Your task to perform on an android device: Search for the best books on Goodreads Image 0: 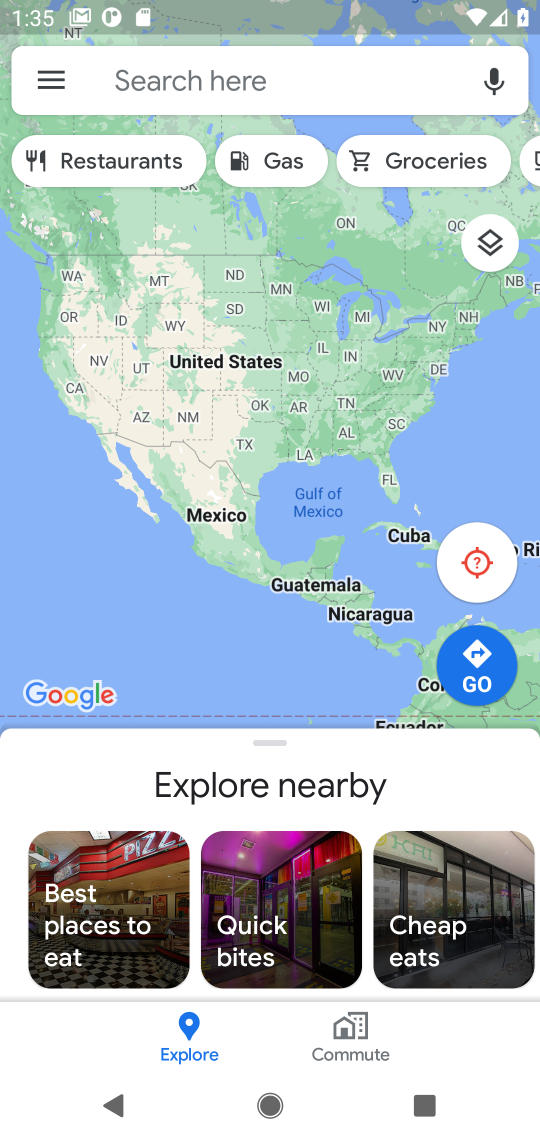
Step 0: press home button
Your task to perform on an android device: Search for the best books on Goodreads Image 1: 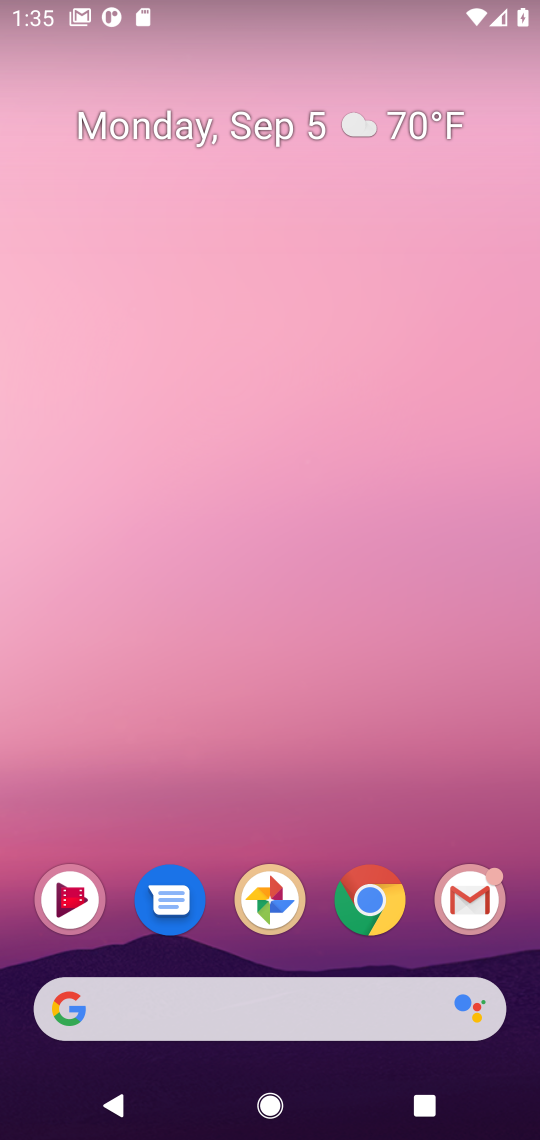
Step 1: drag from (303, 968) to (389, 173)
Your task to perform on an android device: Search for the best books on Goodreads Image 2: 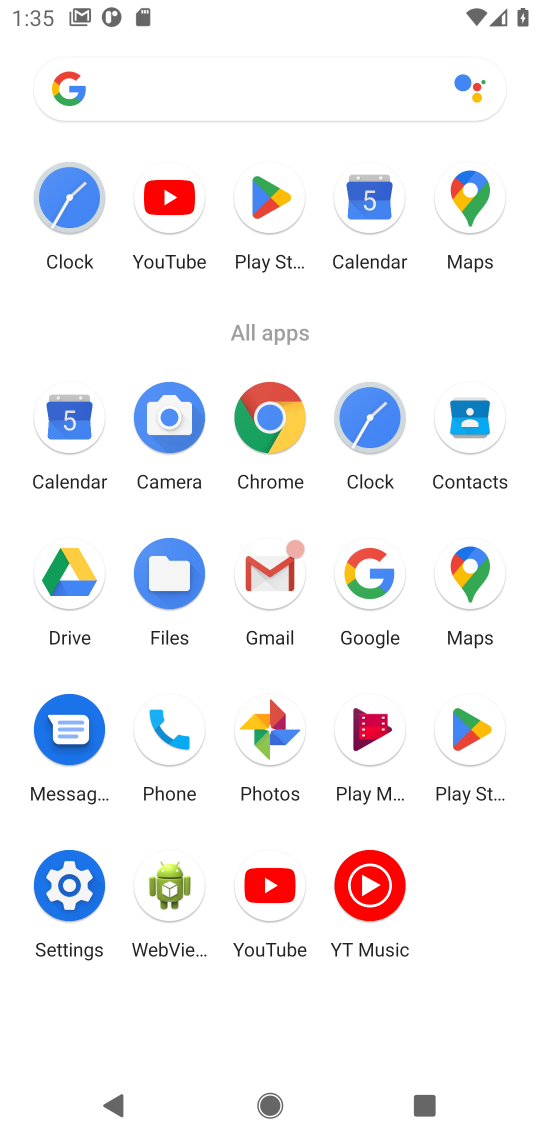
Step 2: click (372, 581)
Your task to perform on an android device: Search for the best books on Goodreads Image 3: 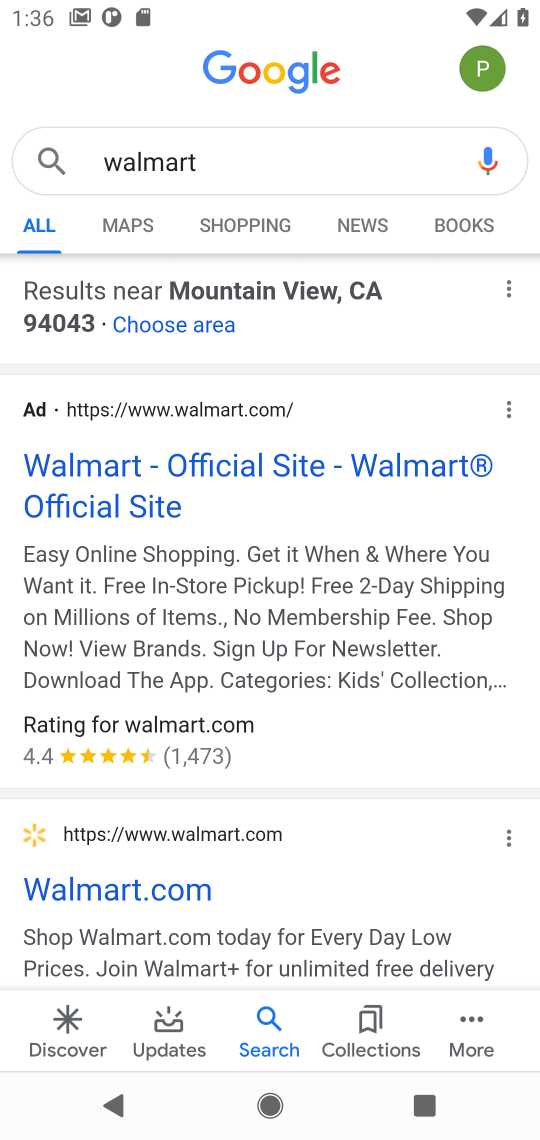
Step 3: click (305, 167)
Your task to perform on an android device: Search for the best books on Goodreads Image 4: 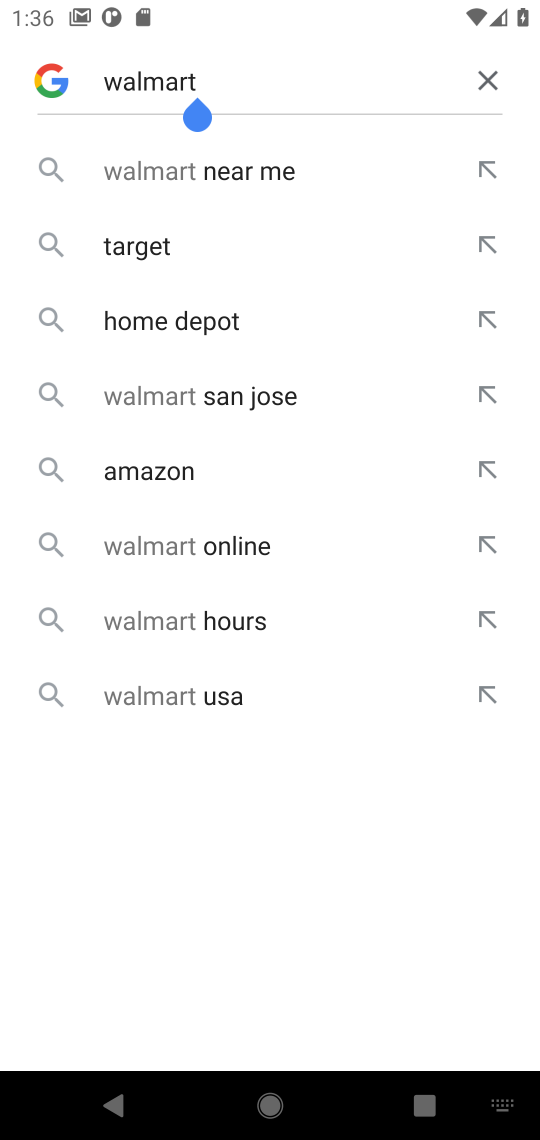
Step 4: click (490, 76)
Your task to perform on an android device: Search for the best books on Goodreads Image 5: 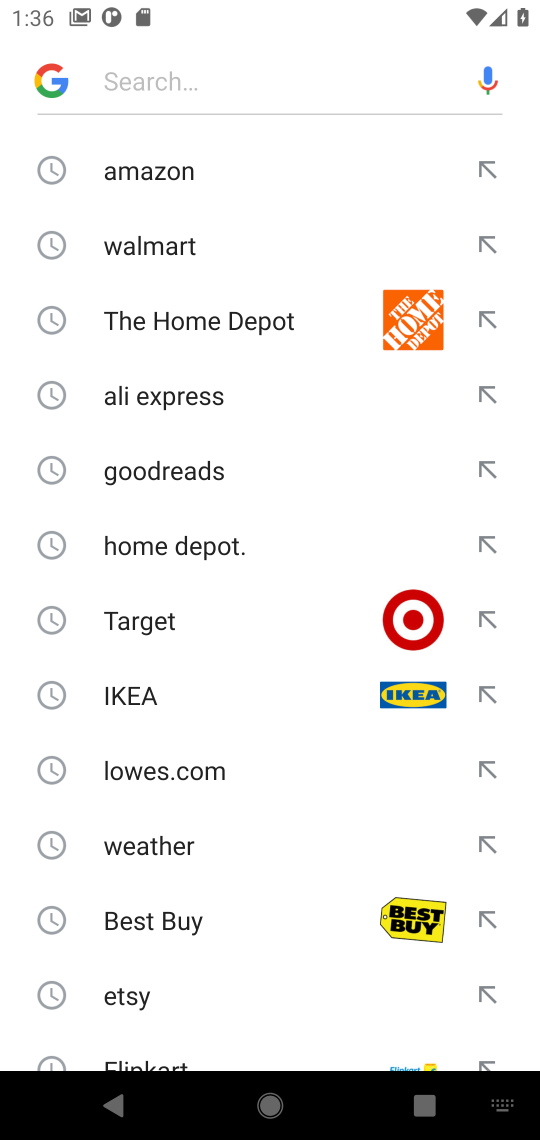
Step 5: type "Goodreads"
Your task to perform on an android device: Search for the best books on Goodreads Image 6: 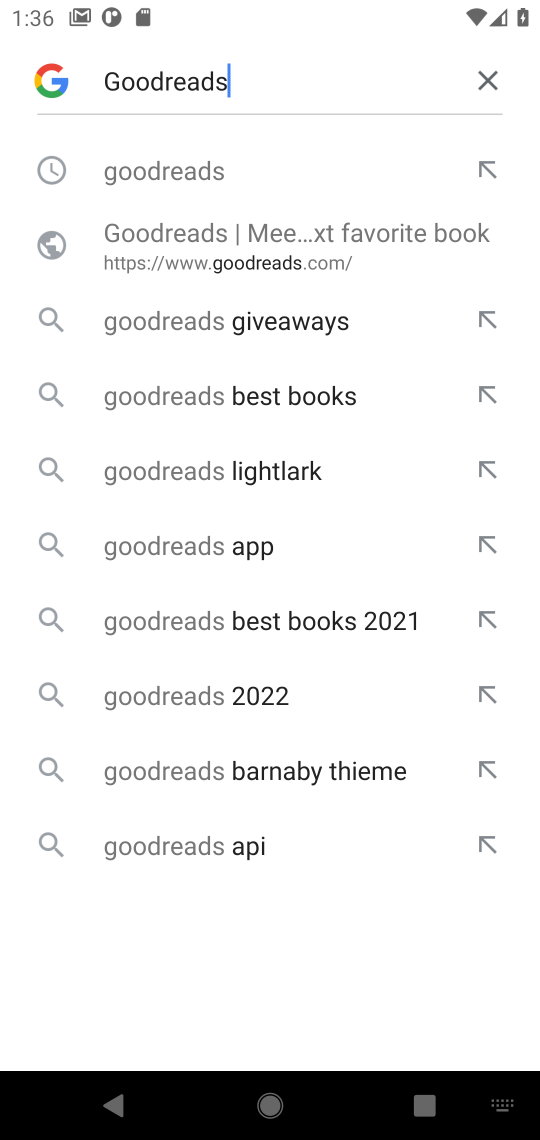
Step 6: type ""
Your task to perform on an android device: Search for the best books on Goodreads Image 7: 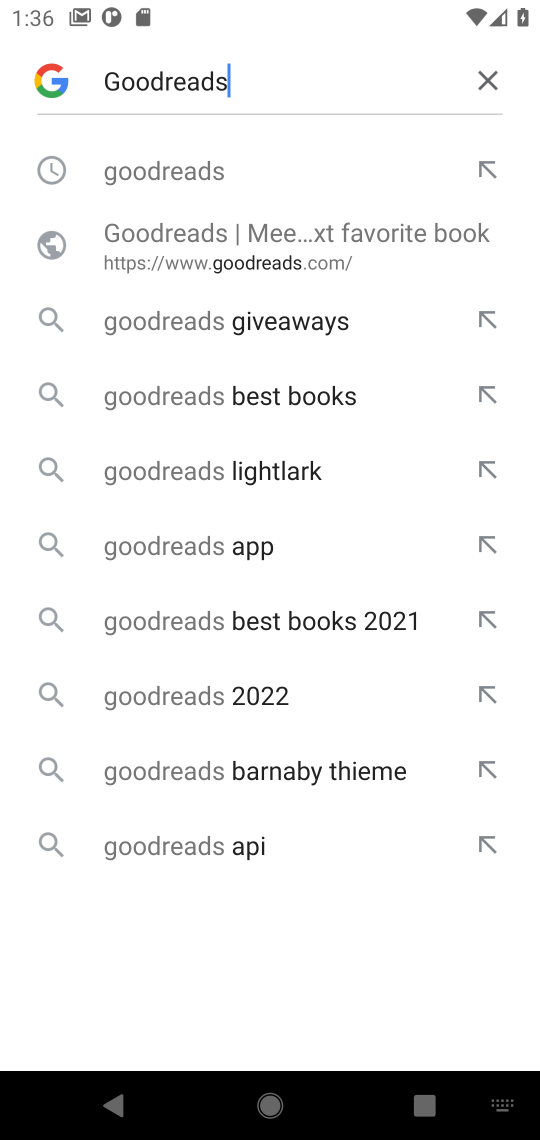
Step 7: click (195, 177)
Your task to perform on an android device: Search for the best books on Goodreads Image 8: 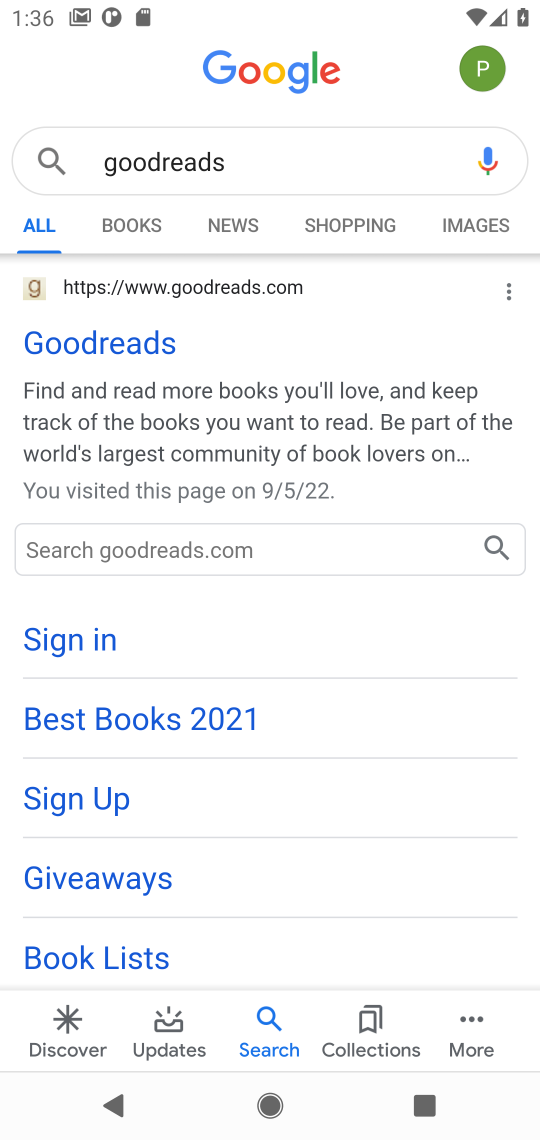
Step 8: click (66, 347)
Your task to perform on an android device: Search for the best books on Goodreads Image 9: 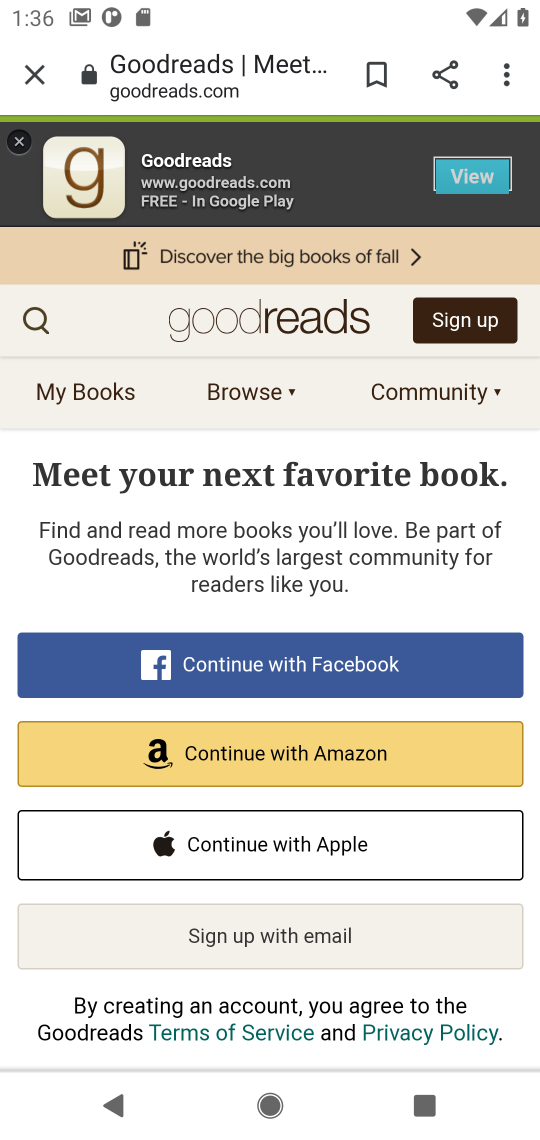
Step 9: click (29, 320)
Your task to perform on an android device: Search for the best books on Goodreads Image 10: 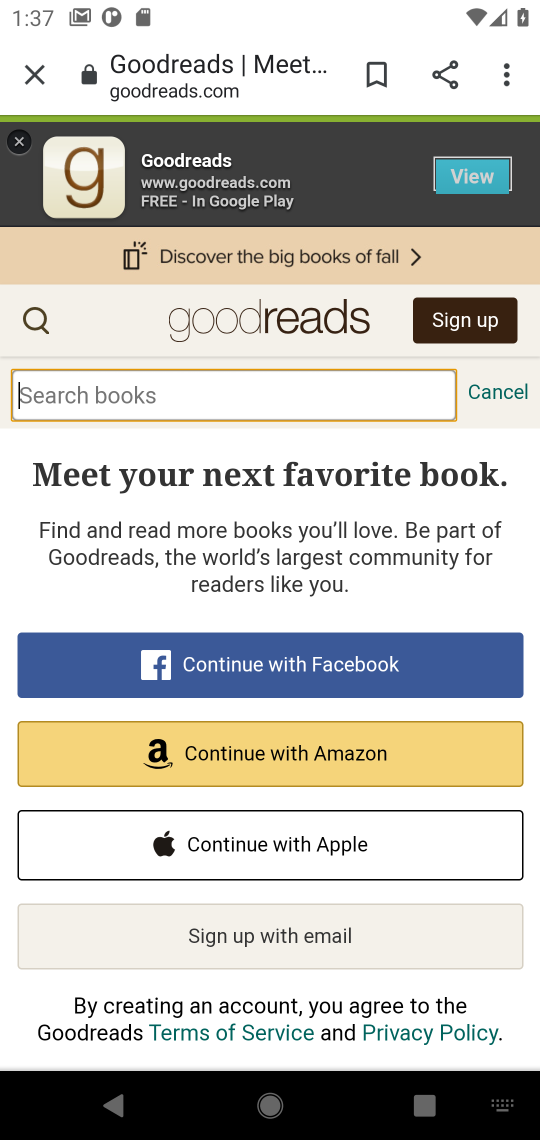
Step 10: type "books"
Your task to perform on an android device: Search for the best books on Goodreads Image 11: 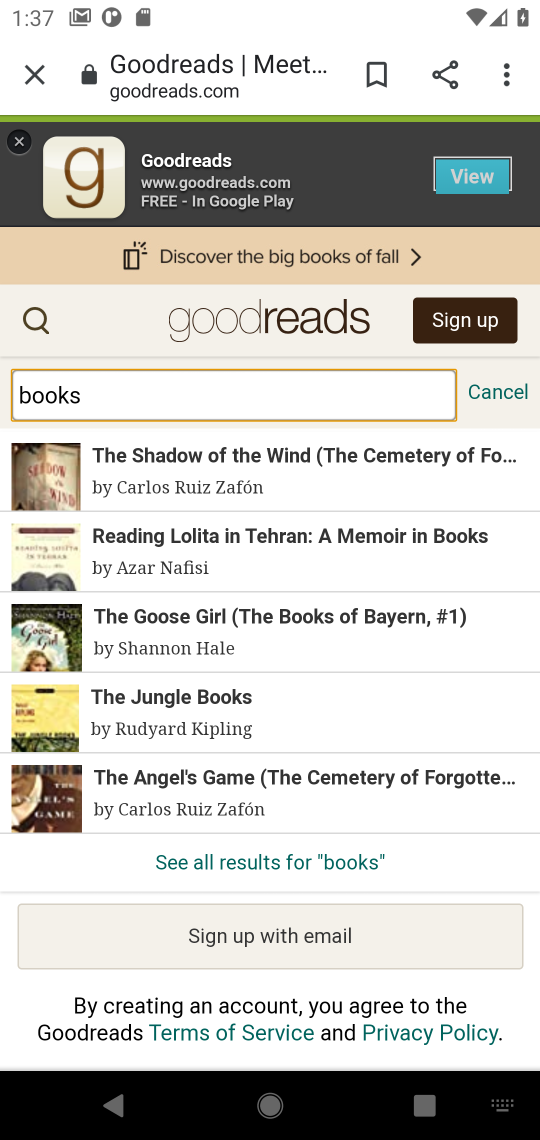
Step 11: task complete